Your task to perform on an android device: Open Reddit.com Image 0: 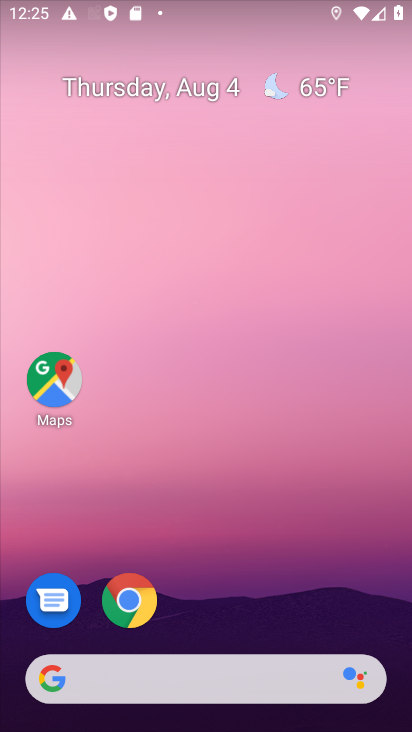
Step 0: drag from (218, 633) to (407, 333)
Your task to perform on an android device: Open Reddit.com Image 1: 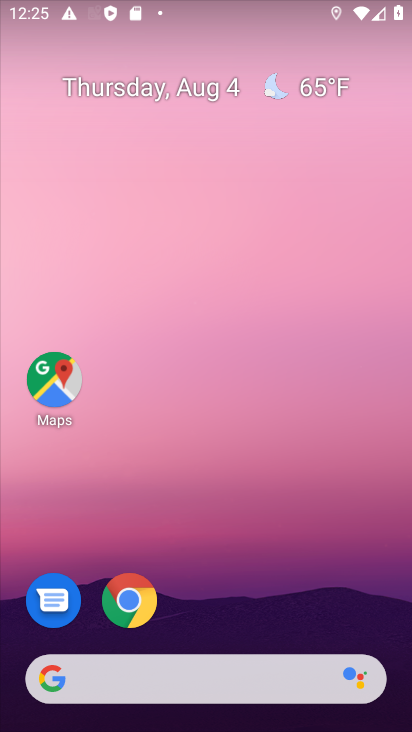
Step 1: click (149, 598)
Your task to perform on an android device: Open Reddit.com Image 2: 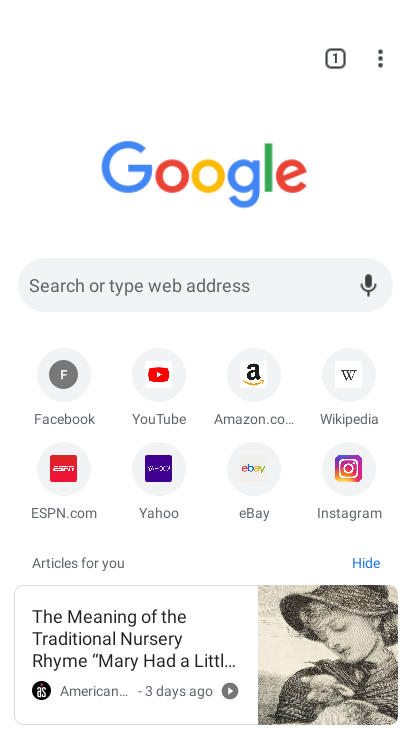
Step 2: click (179, 293)
Your task to perform on an android device: Open Reddit.com Image 3: 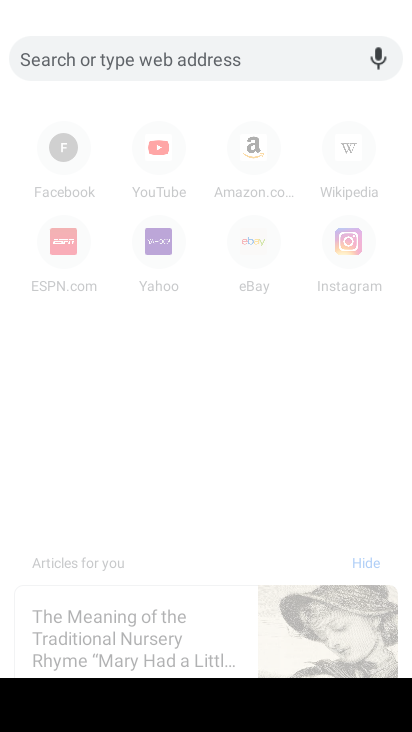
Step 3: type "Reddit"
Your task to perform on an android device: Open Reddit.com Image 4: 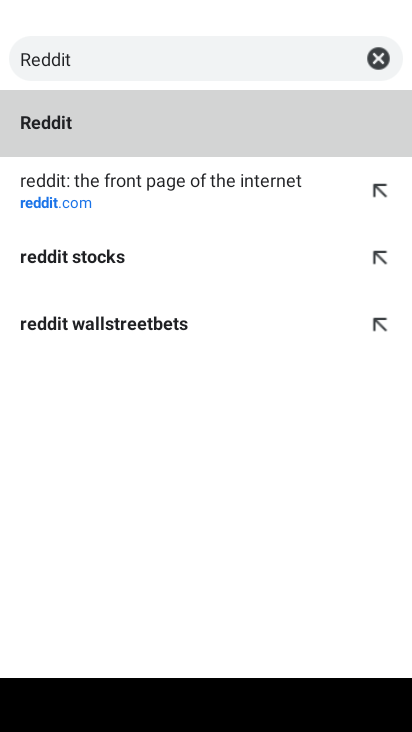
Step 4: click (116, 183)
Your task to perform on an android device: Open Reddit.com Image 5: 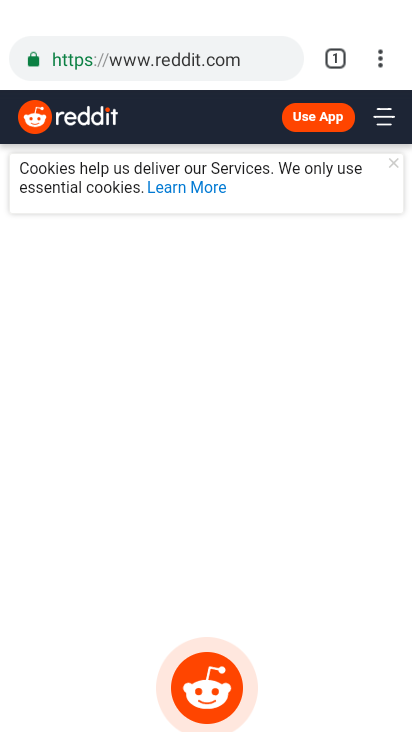
Step 5: task complete